Your task to perform on an android device: move a message to another label in the gmail app Image 0: 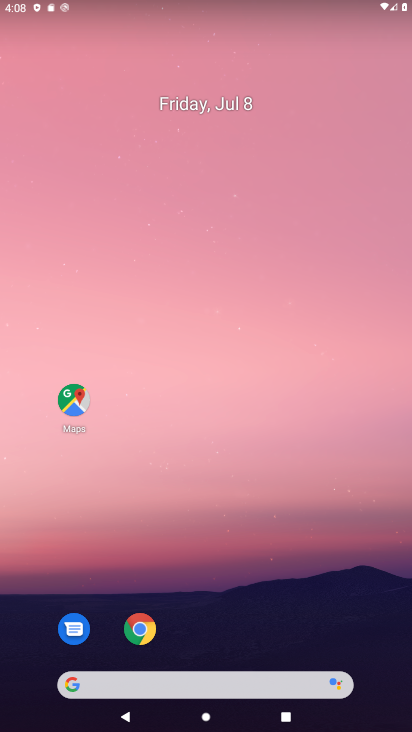
Step 0: drag from (232, 657) to (231, 195)
Your task to perform on an android device: move a message to another label in the gmail app Image 1: 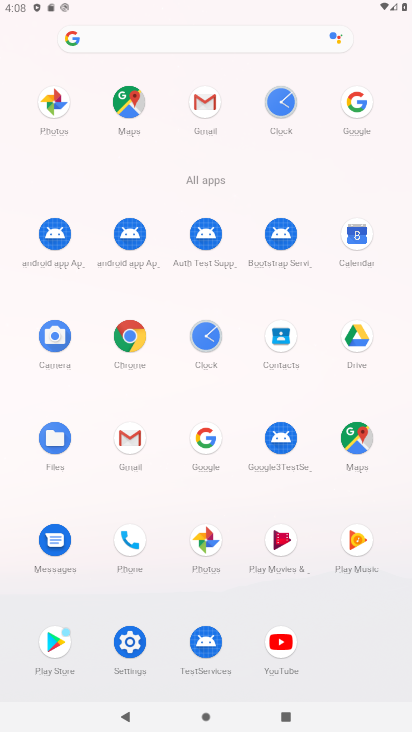
Step 1: click (141, 443)
Your task to perform on an android device: move a message to another label in the gmail app Image 2: 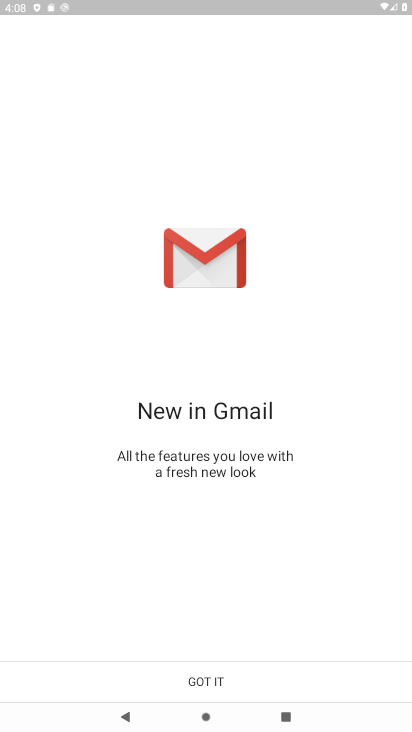
Step 2: click (199, 680)
Your task to perform on an android device: move a message to another label in the gmail app Image 3: 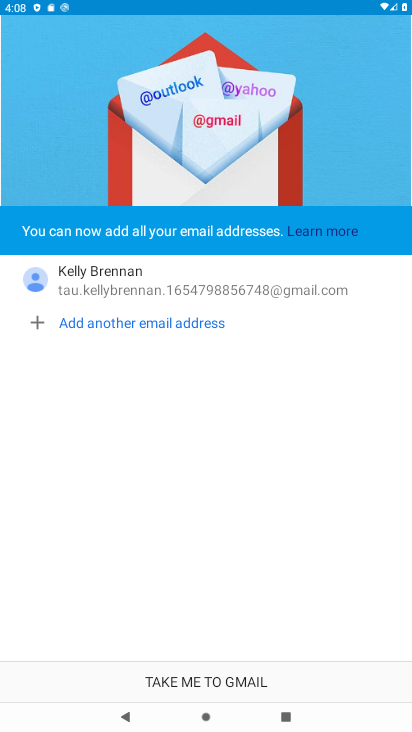
Step 3: click (215, 673)
Your task to perform on an android device: move a message to another label in the gmail app Image 4: 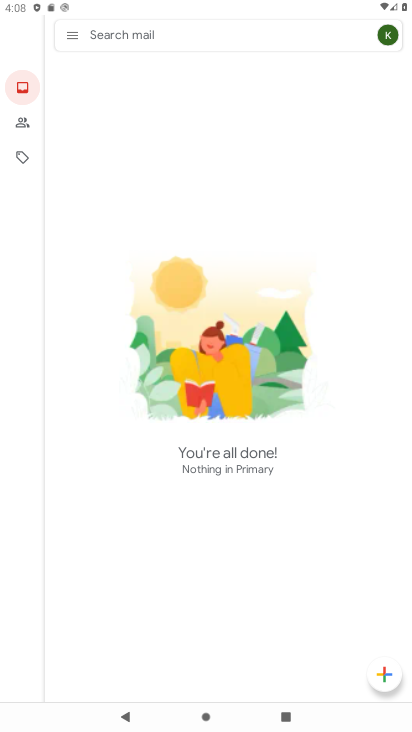
Step 4: task complete